Your task to perform on an android device: Open Youtube and go to "Your channel" Image 0: 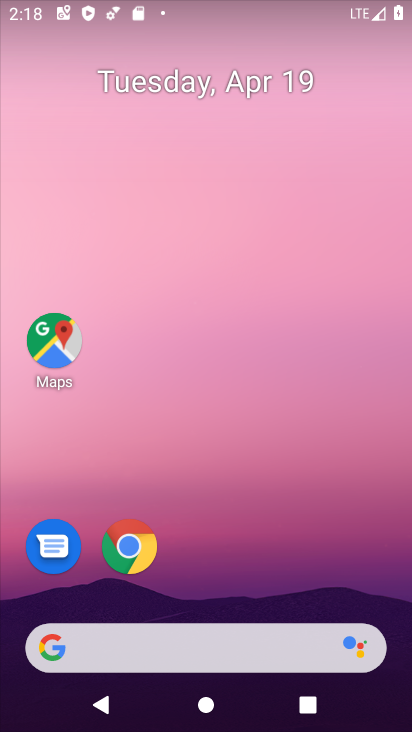
Step 0: drag from (177, 633) to (208, 34)
Your task to perform on an android device: Open Youtube and go to "Your channel" Image 1: 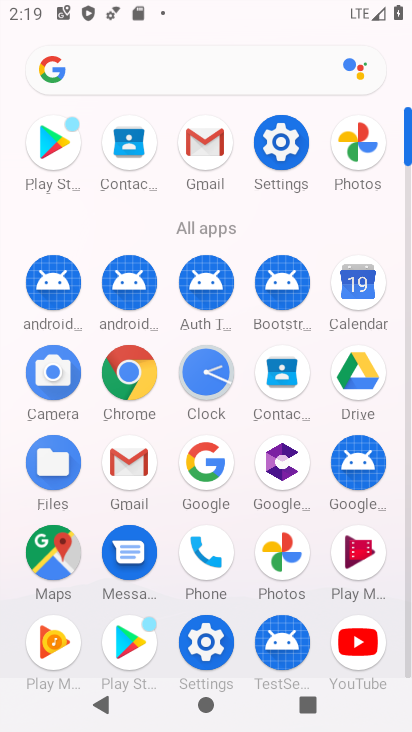
Step 1: click (368, 649)
Your task to perform on an android device: Open Youtube and go to "Your channel" Image 2: 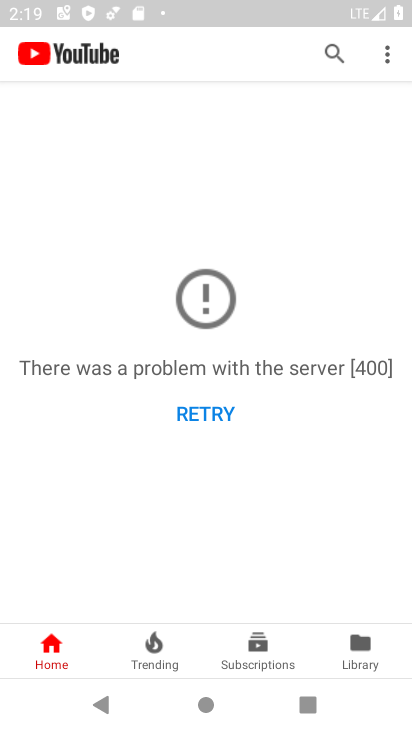
Step 2: click (211, 412)
Your task to perform on an android device: Open Youtube and go to "Your channel" Image 3: 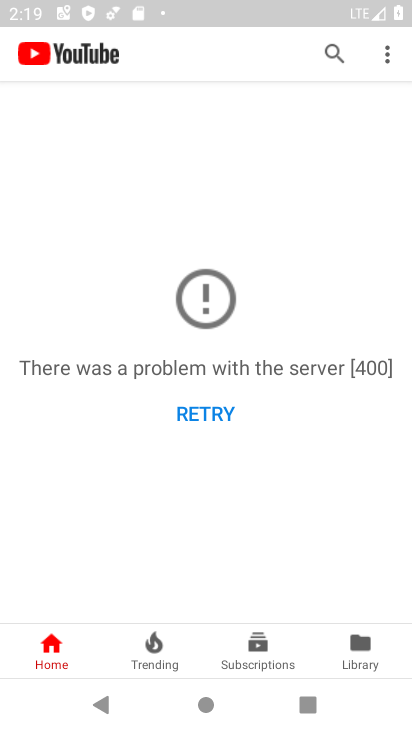
Step 3: click (387, 58)
Your task to perform on an android device: Open Youtube and go to "Your channel" Image 4: 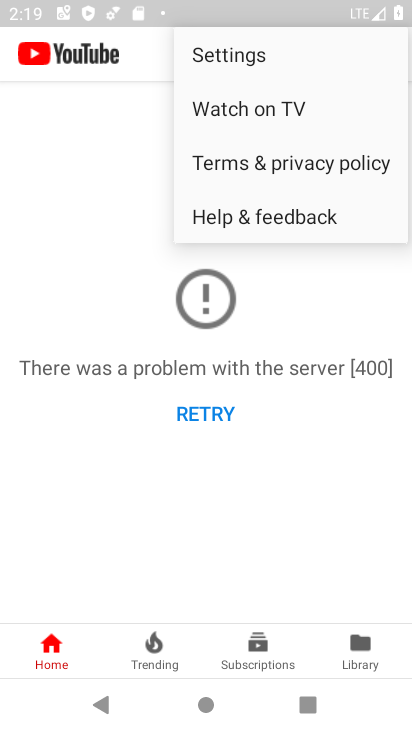
Step 4: click (90, 206)
Your task to perform on an android device: Open Youtube and go to "Your channel" Image 5: 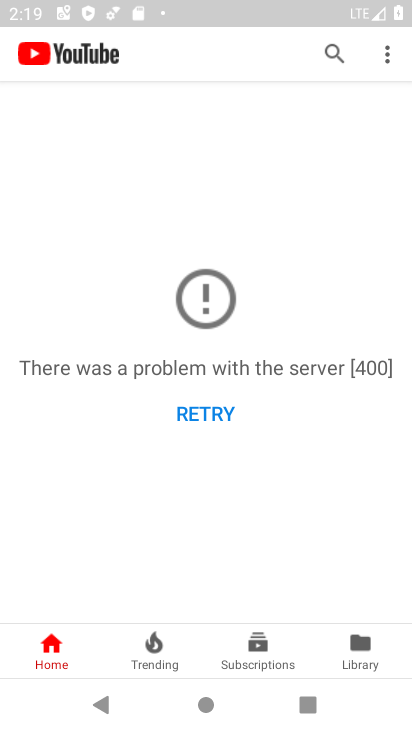
Step 5: task complete